Your task to perform on an android device: allow notifications from all sites in the chrome app Image 0: 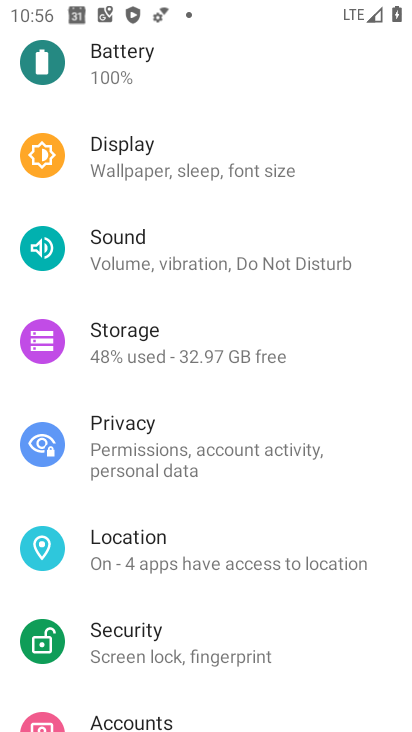
Step 0: press home button
Your task to perform on an android device: allow notifications from all sites in the chrome app Image 1: 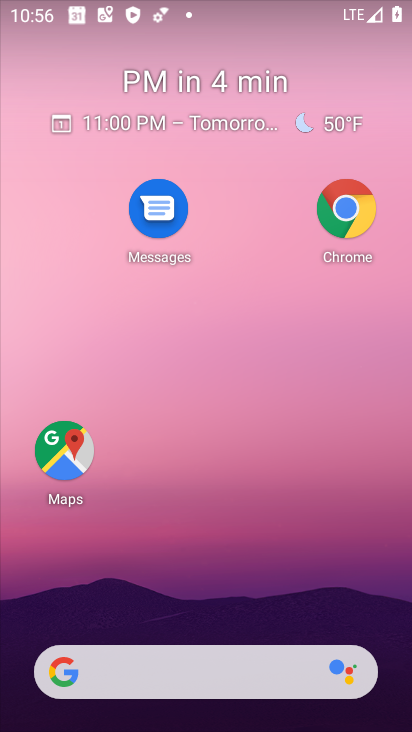
Step 1: click (346, 198)
Your task to perform on an android device: allow notifications from all sites in the chrome app Image 2: 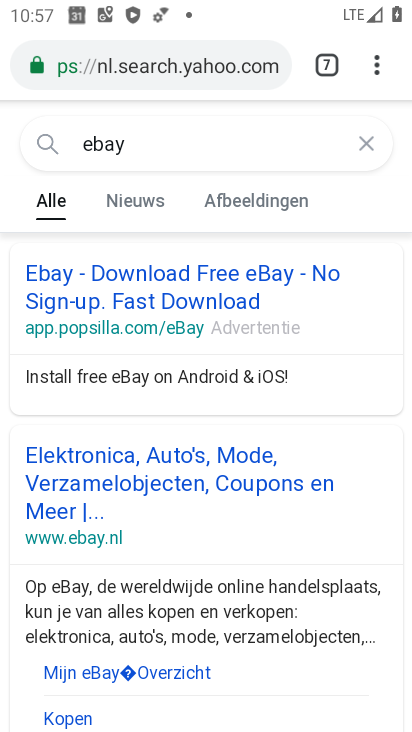
Step 2: press home button
Your task to perform on an android device: allow notifications from all sites in the chrome app Image 3: 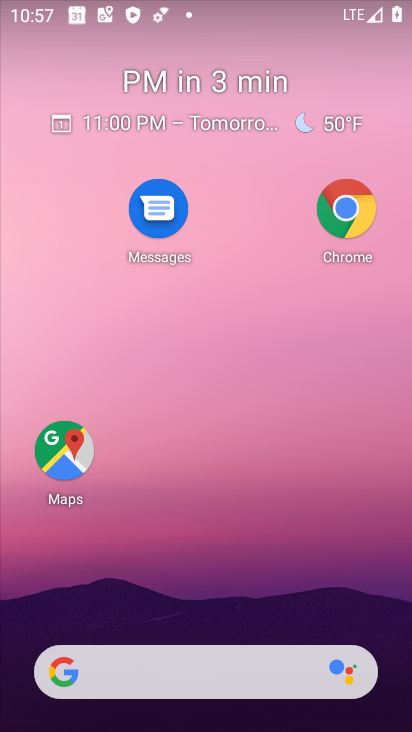
Step 3: drag from (149, 634) to (122, 15)
Your task to perform on an android device: allow notifications from all sites in the chrome app Image 4: 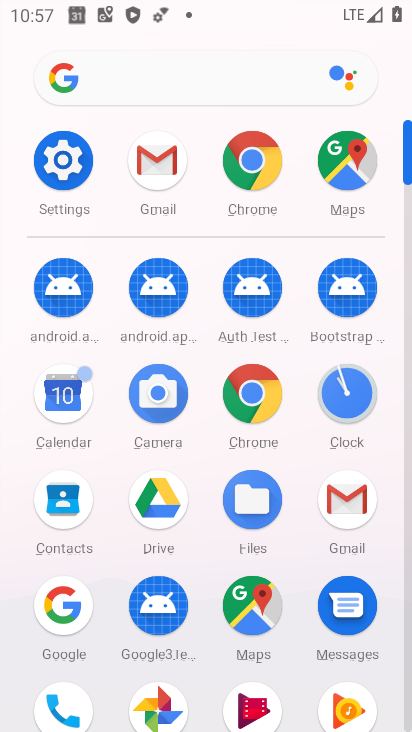
Step 4: click (242, 397)
Your task to perform on an android device: allow notifications from all sites in the chrome app Image 5: 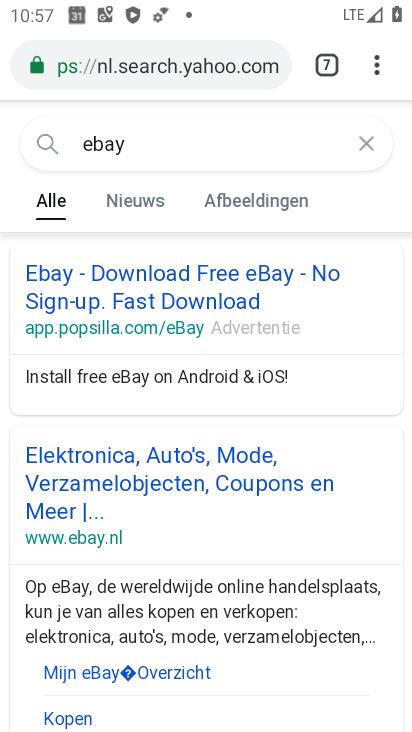
Step 5: click (379, 57)
Your task to perform on an android device: allow notifications from all sites in the chrome app Image 6: 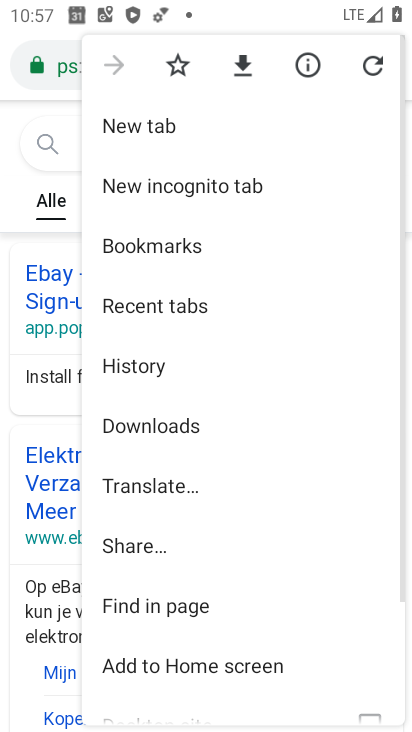
Step 6: drag from (206, 573) to (161, 11)
Your task to perform on an android device: allow notifications from all sites in the chrome app Image 7: 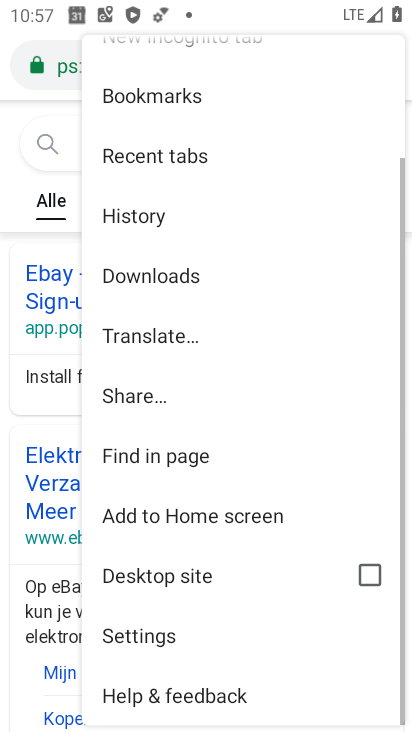
Step 7: click (128, 615)
Your task to perform on an android device: allow notifications from all sites in the chrome app Image 8: 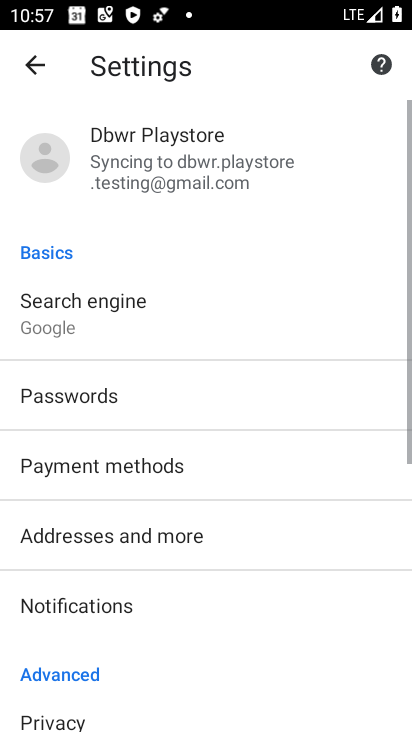
Step 8: drag from (113, 607) to (125, 159)
Your task to perform on an android device: allow notifications from all sites in the chrome app Image 9: 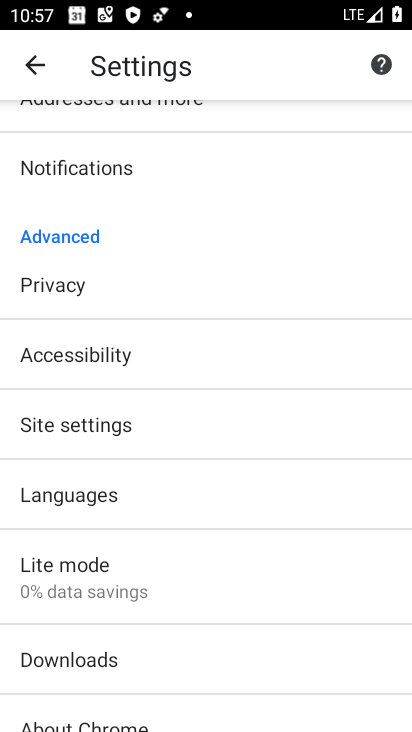
Step 9: click (87, 439)
Your task to perform on an android device: allow notifications from all sites in the chrome app Image 10: 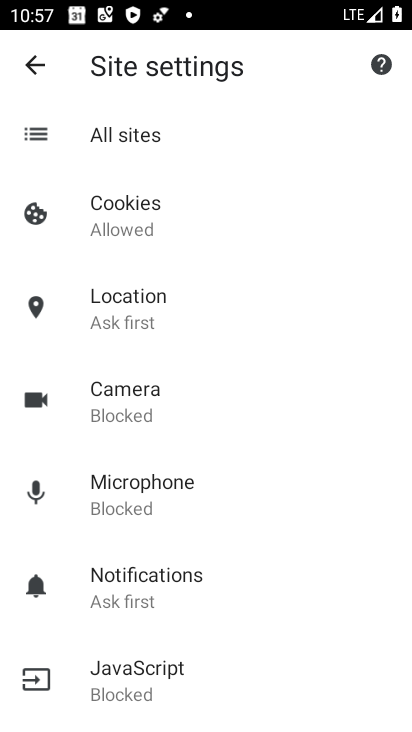
Step 10: click (120, 560)
Your task to perform on an android device: allow notifications from all sites in the chrome app Image 11: 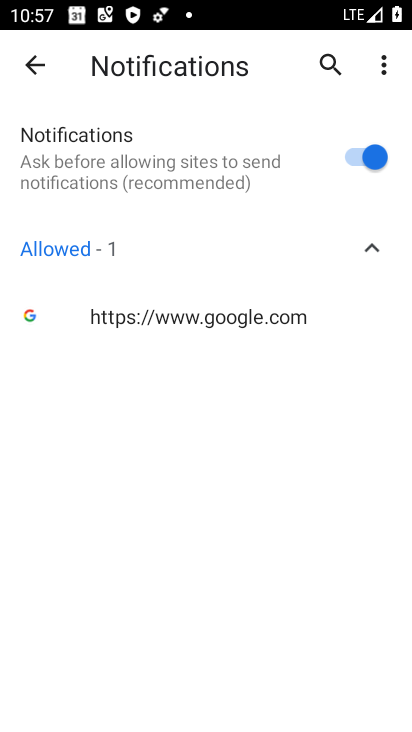
Step 11: task complete